Your task to perform on an android device: Check the weather Image 0: 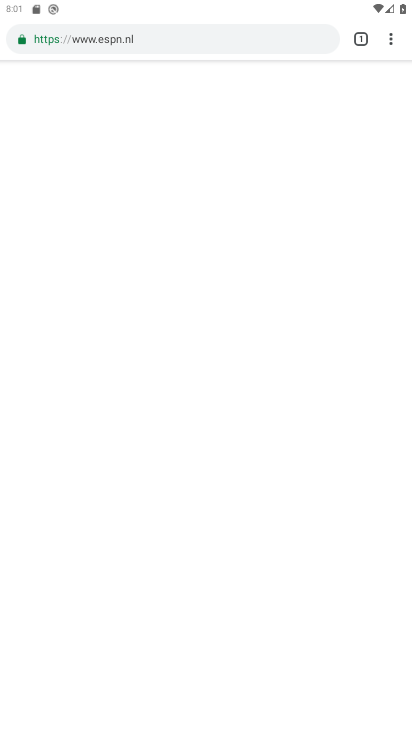
Step 0: press home button
Your task to perform on an android device: Check the weather Image 1: 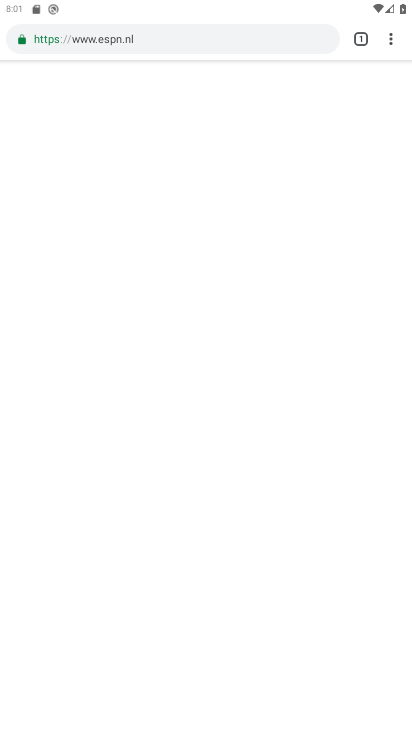
Step 1: press home button
Your task to perform on an android device: Check the weather Image 2: 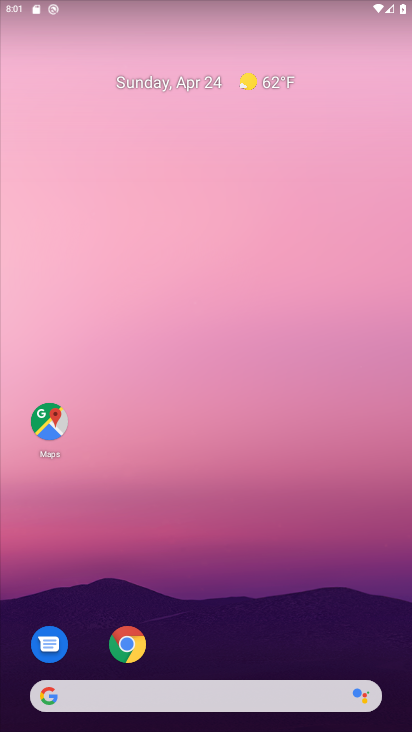
Step 2: click (272, 79)
Your task to perform on an android device: Check the weather Image 3: 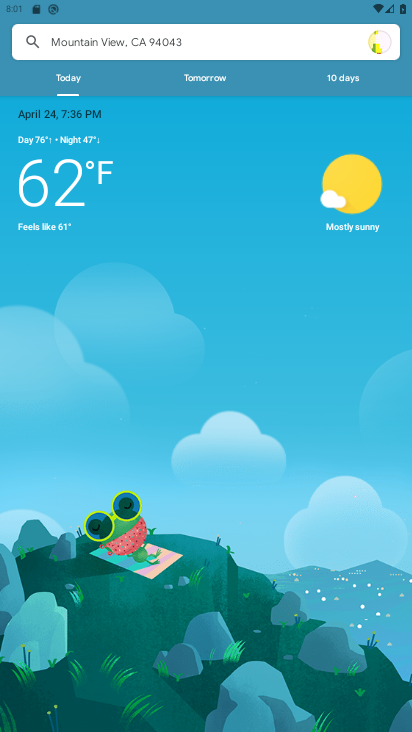
Step 3: task complete